Your task to perform on an android device: Open location settings Image 0: 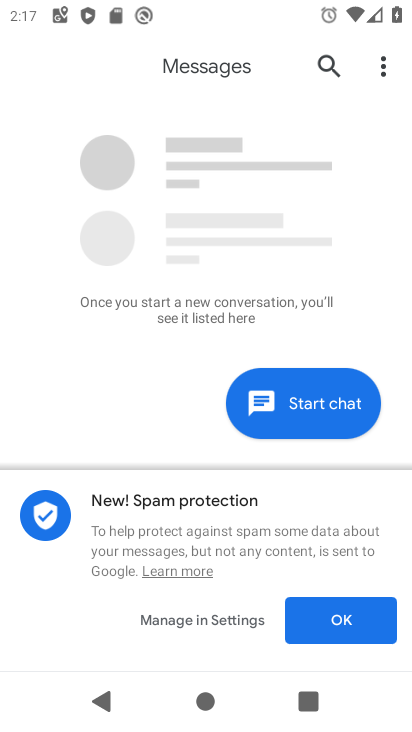
Step 0: press home button
Your task to perform on an android device: Open location settings Image 1: 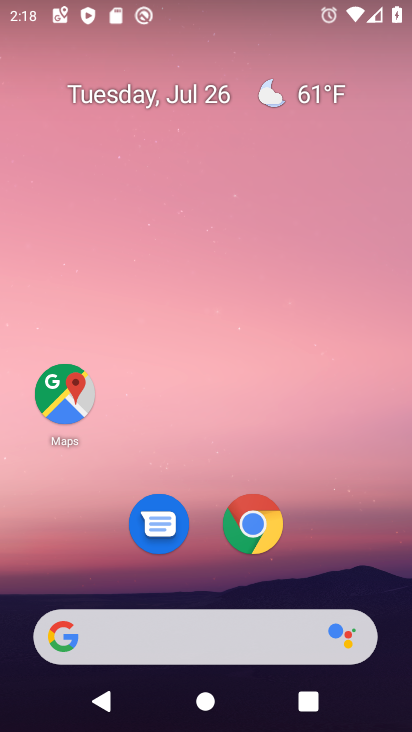
Step 1: drag from (192, 619) to (287, 94)
Your task to perform on an android device: Open location settings Image 2: 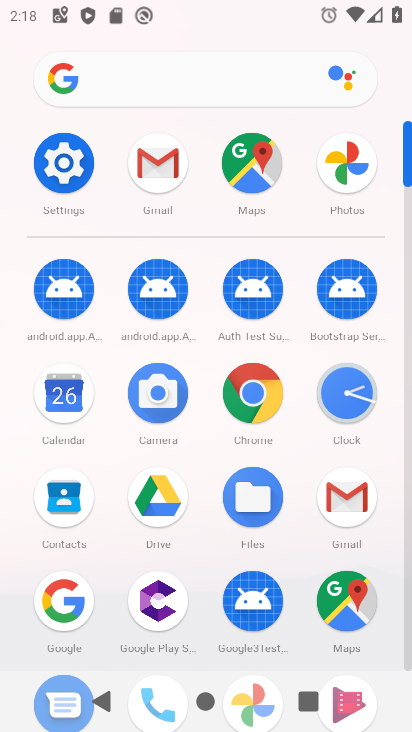
Step 2: click (68, 163)
Your task to perform on an android device: Open location settings Image 3: 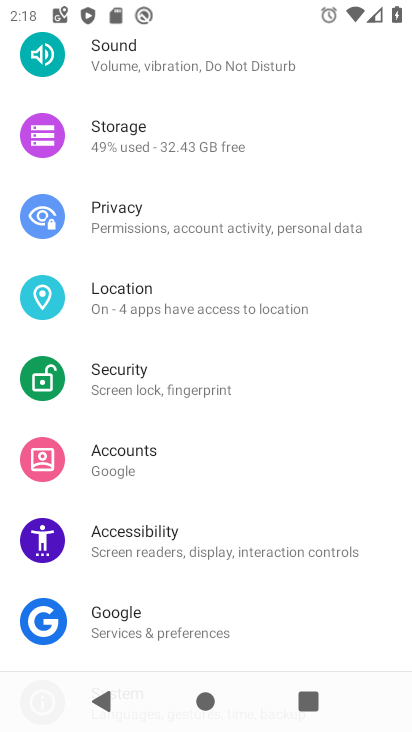
Step 3: click (133, 298)
Your task to perform on an android device: Open location settings Image 4: 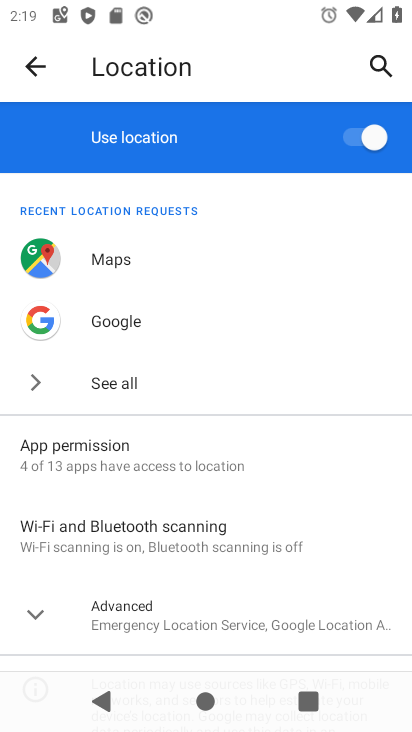
Step 4: task complete